Your task to perform on an android device: Go to accessibility settings Image 0: 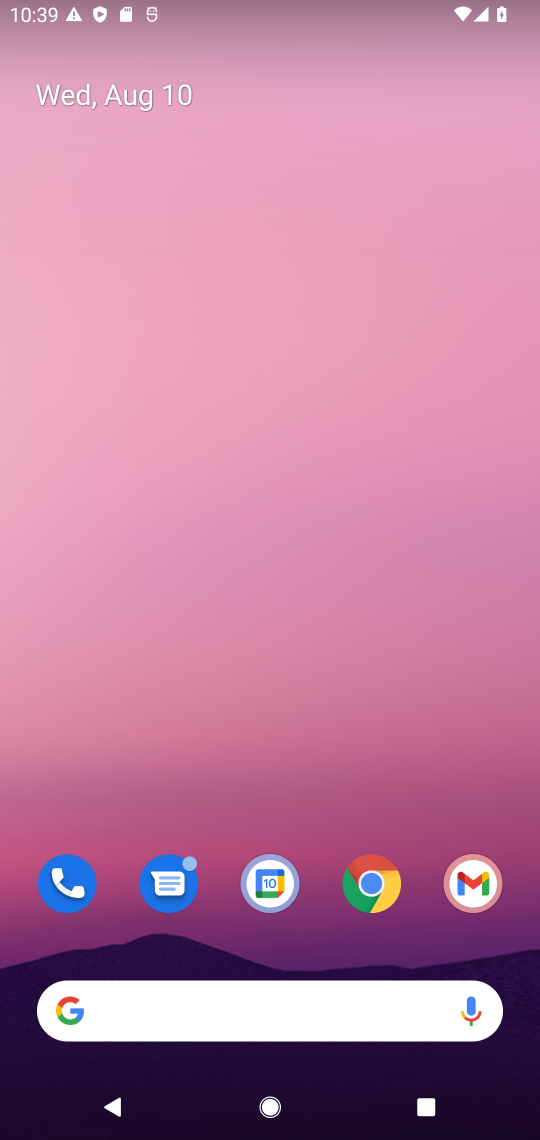
Step 0: drag from (328, 926) to (346, 62)
Your task to perform on an android device: Go to accessibility settings Image 1: 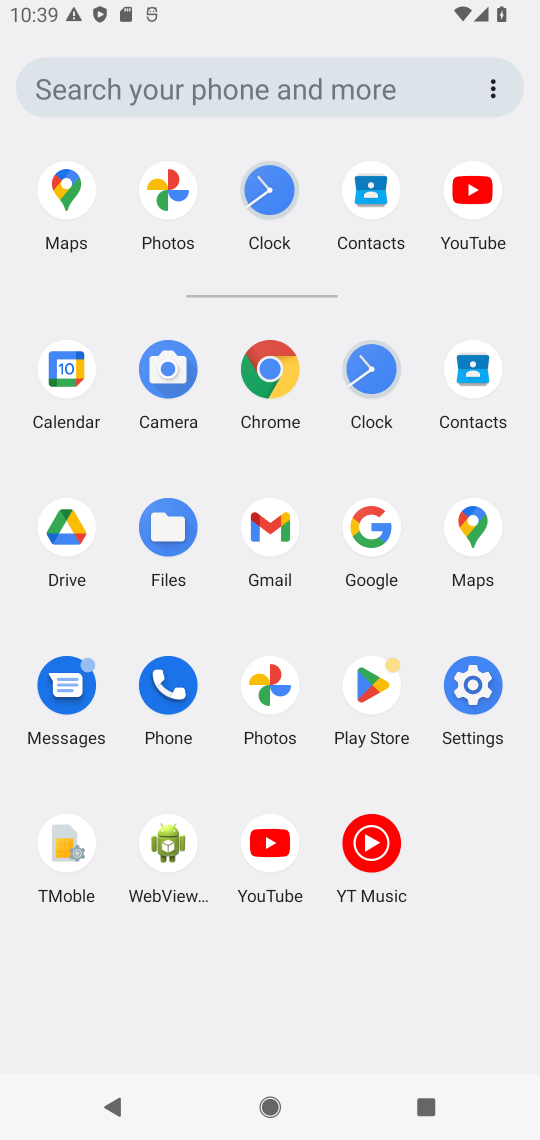
Step 1: click (475, 682)
Your task to perform on an android device: Go to accessibility settings Image 2: 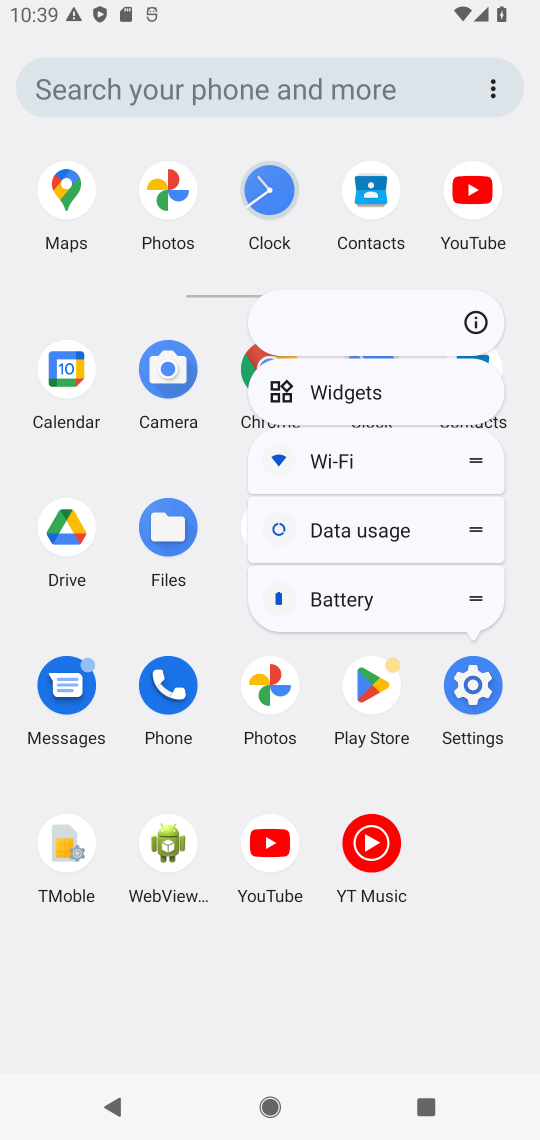
Step 2: click (477, 676)
Your task to perform on an android device: Go to accessibility settings Image 3: 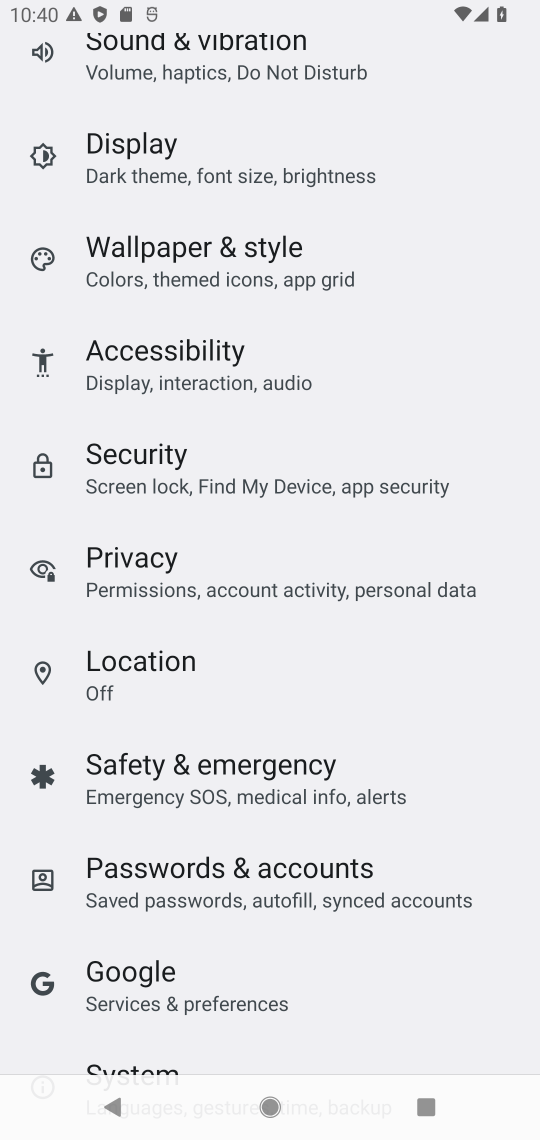
Step 3: click (143, 381)
Your task to perform on an android device: Go to accessibility settings Image 4: 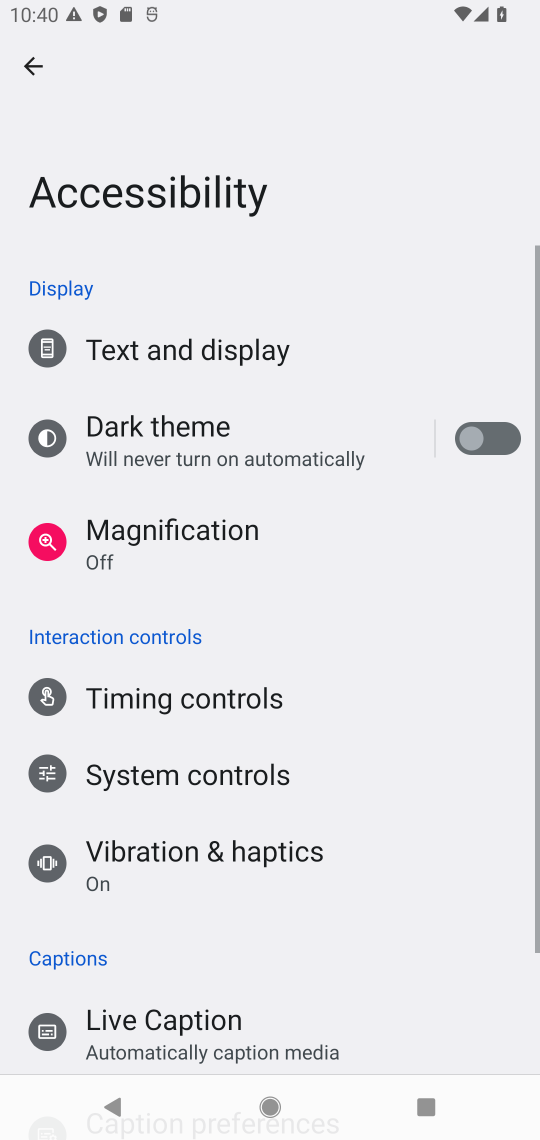
Step 4: task complete